Your task to perform on an android device: visit the assistant section in the google photos Image 0: 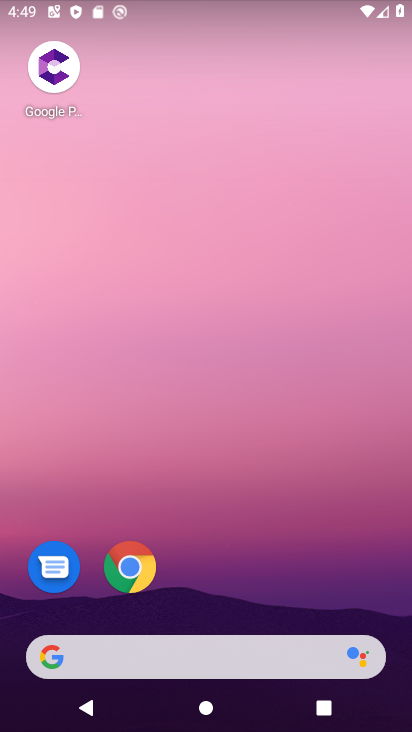
Step 0: drag from (283, 523) to (319, 6)
Your task to perform on an android device: visit the assistant section in the google photos Image 1: 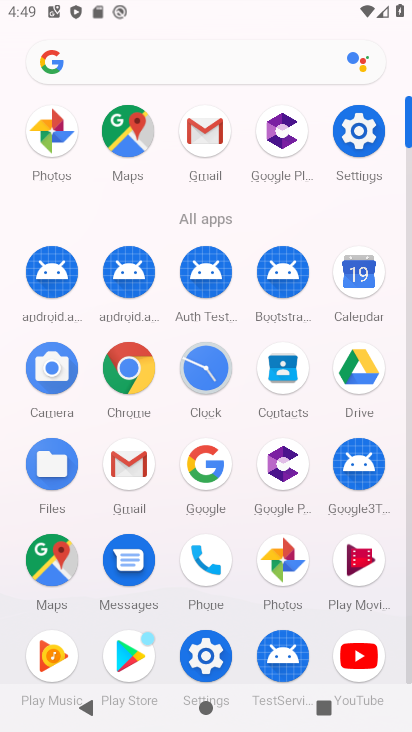
Step 1: click (294, 554)
Your task to perform on an android device: visit the assistant section in the google photos Image 2: 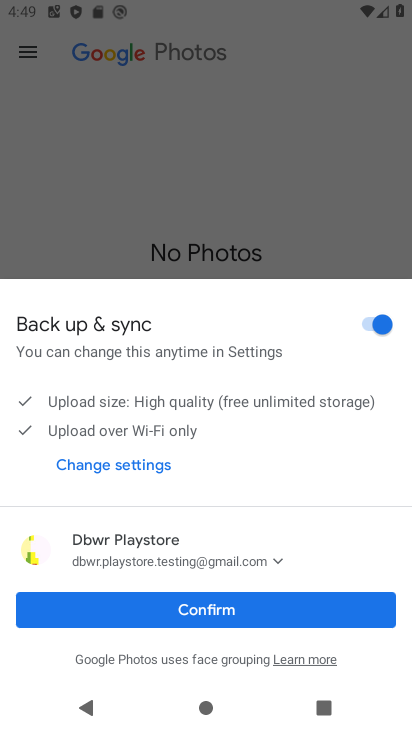
Step 2: click (285, 603)
Your task to perform on an android device: visit the assistant section in the google photos Image 3: 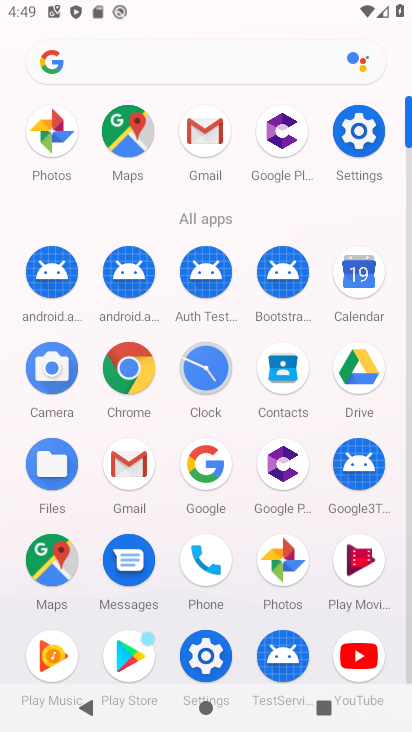
Step 3: click (287, 588)
Your task to perform on an android device: visit the assistant section in the google photos Image 4: 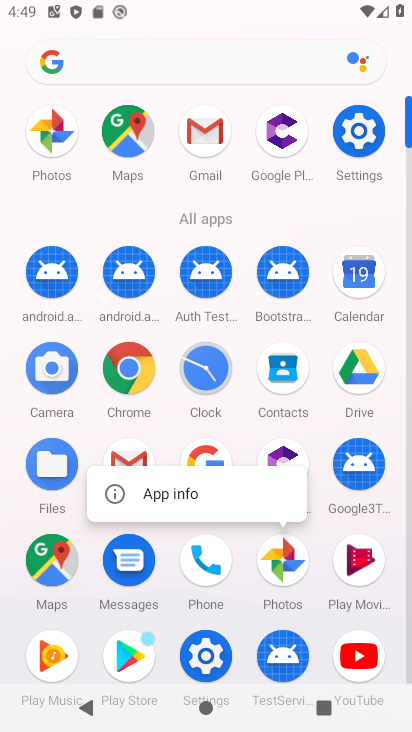
Step 4: click (279, 579)
Your task to perform on an android device: visit the assistant section in the google photos Image 5: 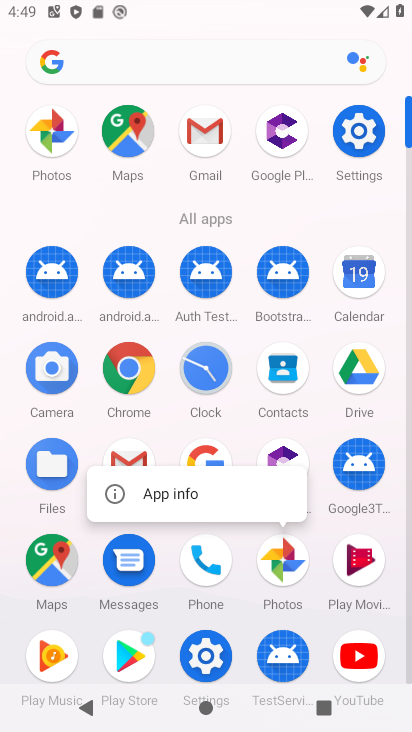
Step 5: click (289, 539)
Your task to perform on an android device: visit the assistant section in the google photos Image 6: 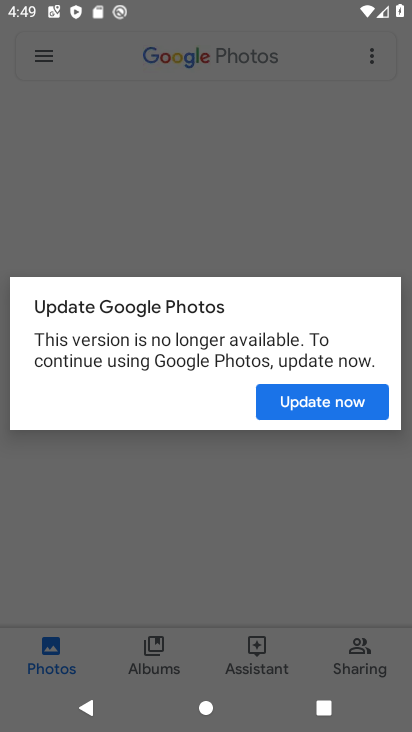
Step 6: click (314, 405)
Your task to perform on an android device: visit the assistant section in the google photos Image 7: 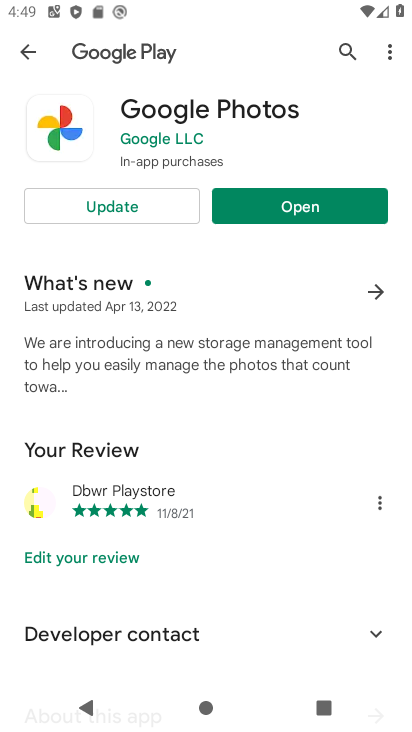
Step 7: click (302, 198)
Your task to perform on an android device: visit the assistant section in the google photos Image 8: 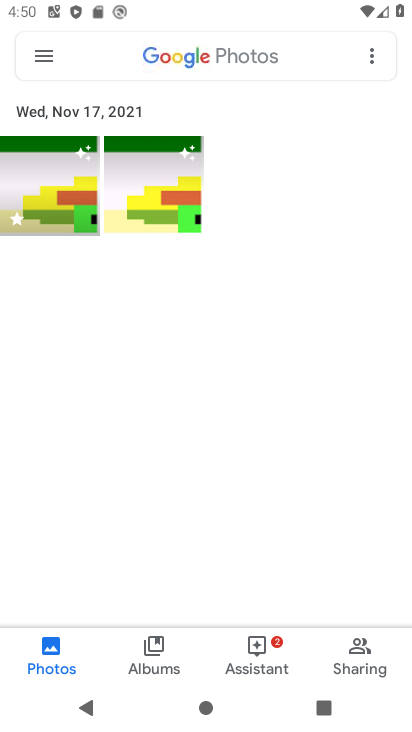
Step 8: click (248, 640)
Your task to perform on an android device: visit the assistant section in the google photos Image 9: 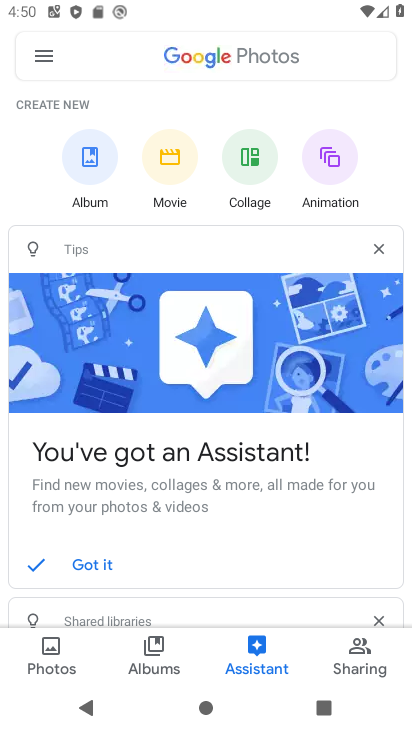
Step 9: task complete